Your task to perform on an android device: open app "Google Drive" (install if not already installed) Image 0: 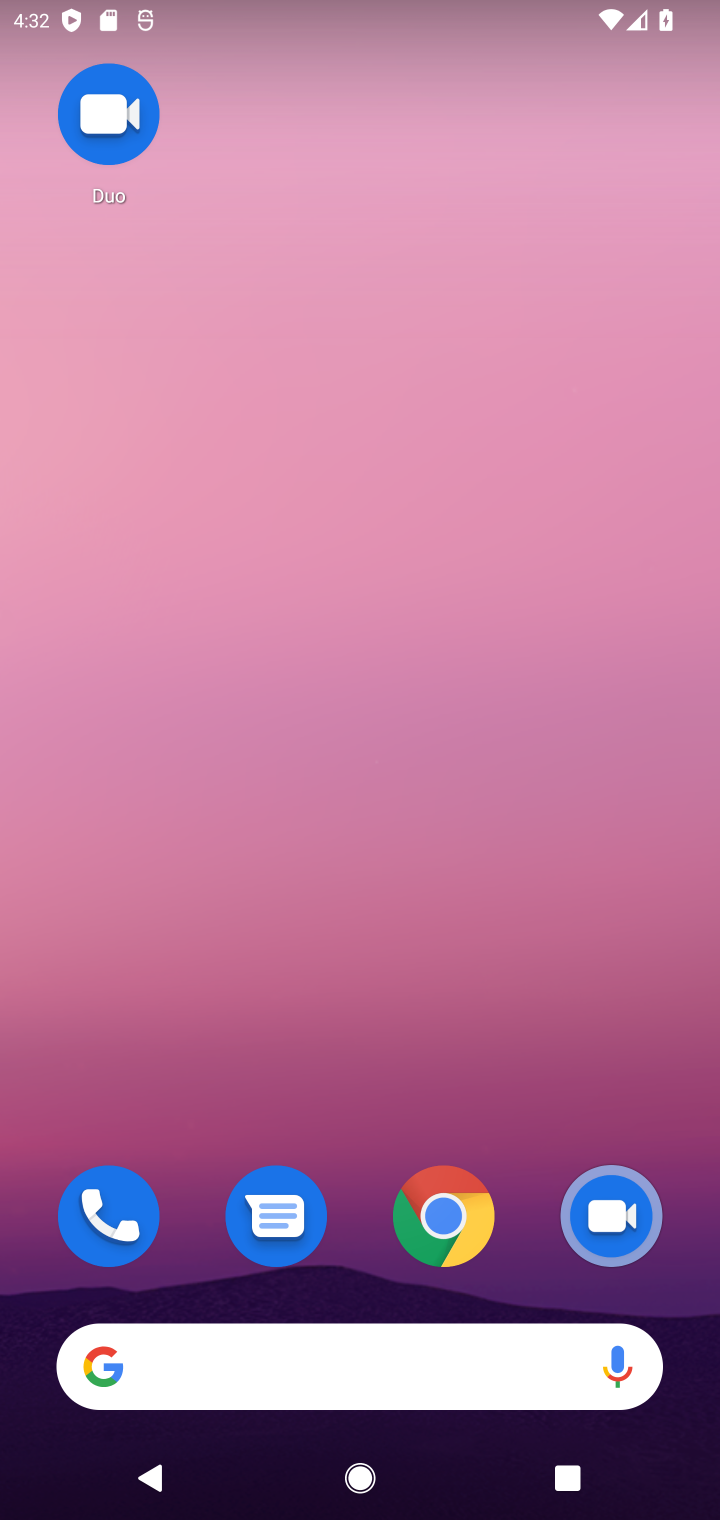
Step 0: drag from (351, 833) to (339, 403)
Your task to perform on an android device: open app "Google Drive" (install if not already installed) Image 1: 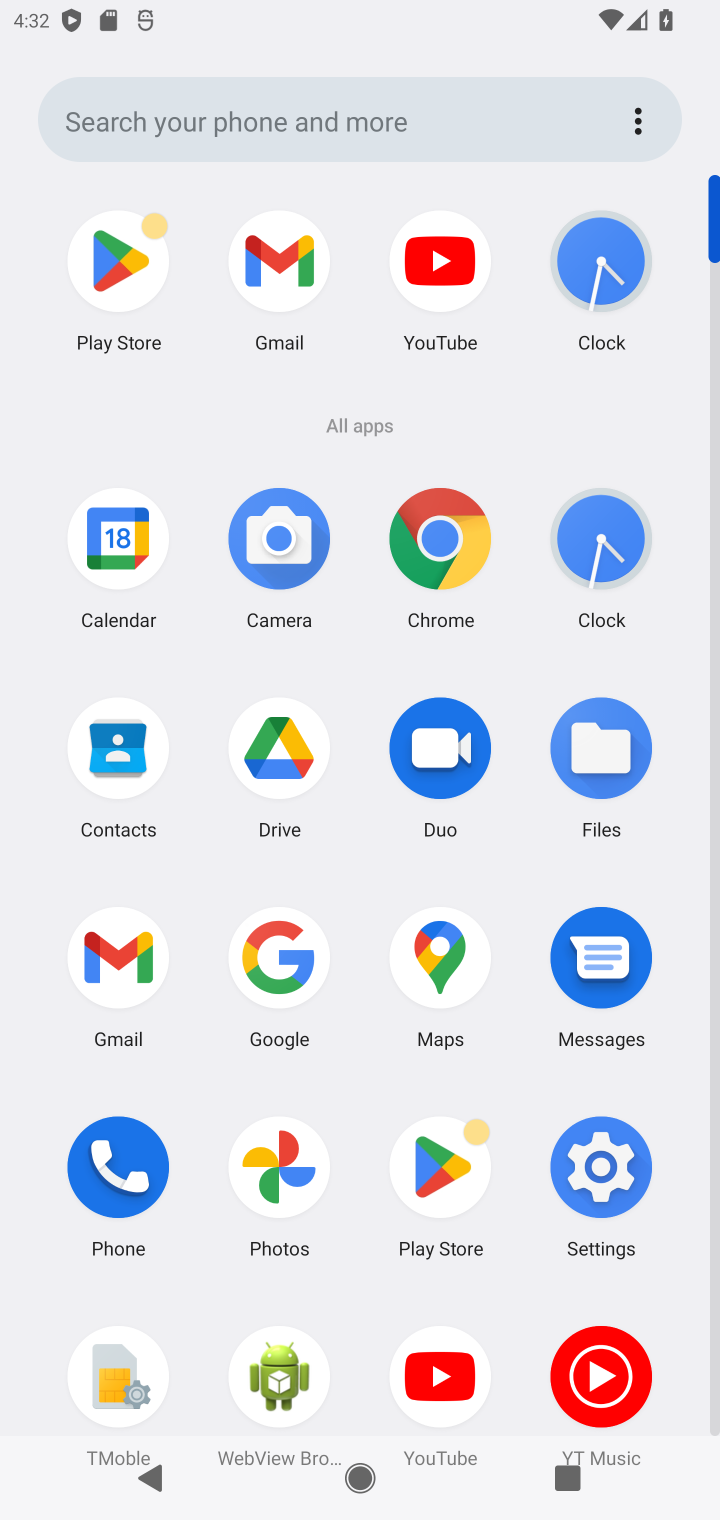
Step 1: click (124, 211)
Your task to perform on an android device: open app "Google Drive" (install if not already installed) Image 2: 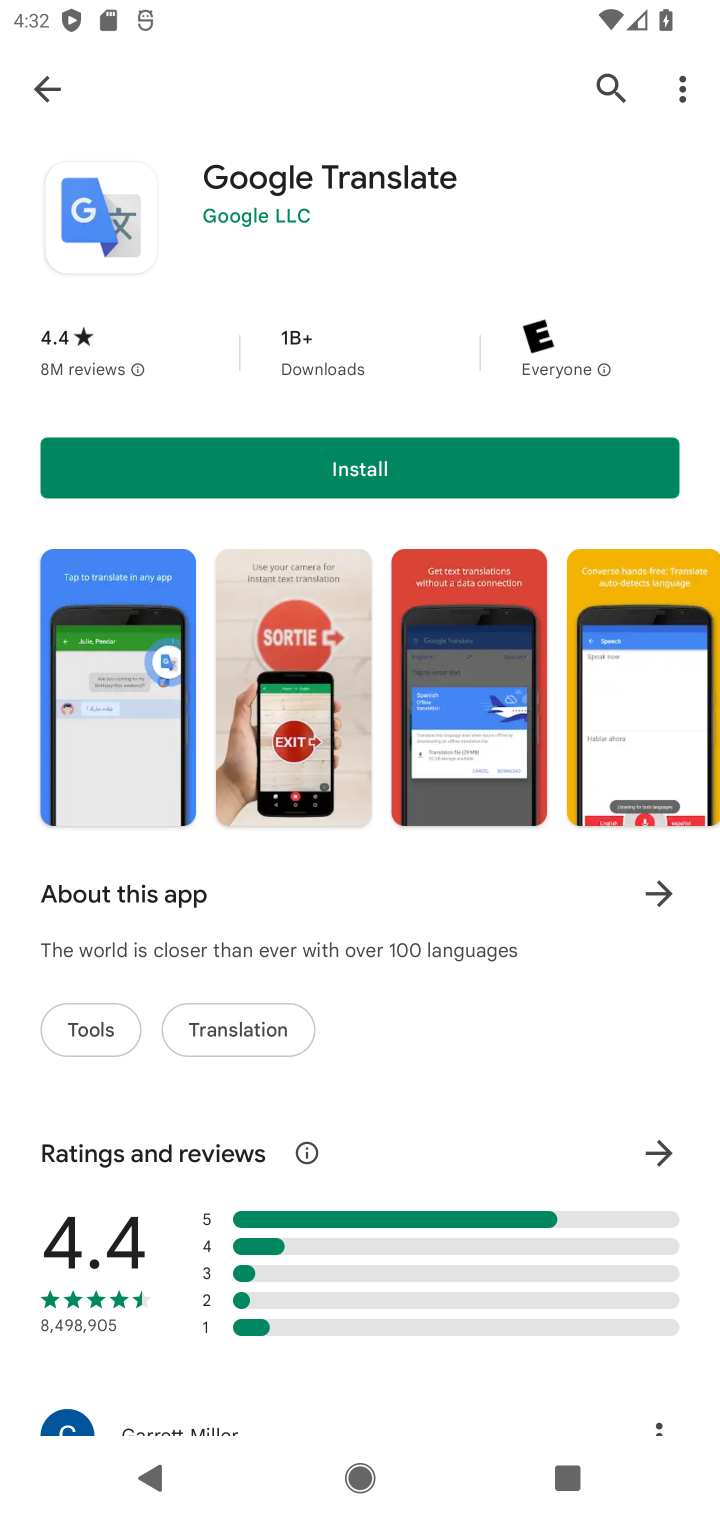
Step 2: click (619, 108)
Your task to perform on an android device: open app "Google Drive" (install if not already installed) Image 3: 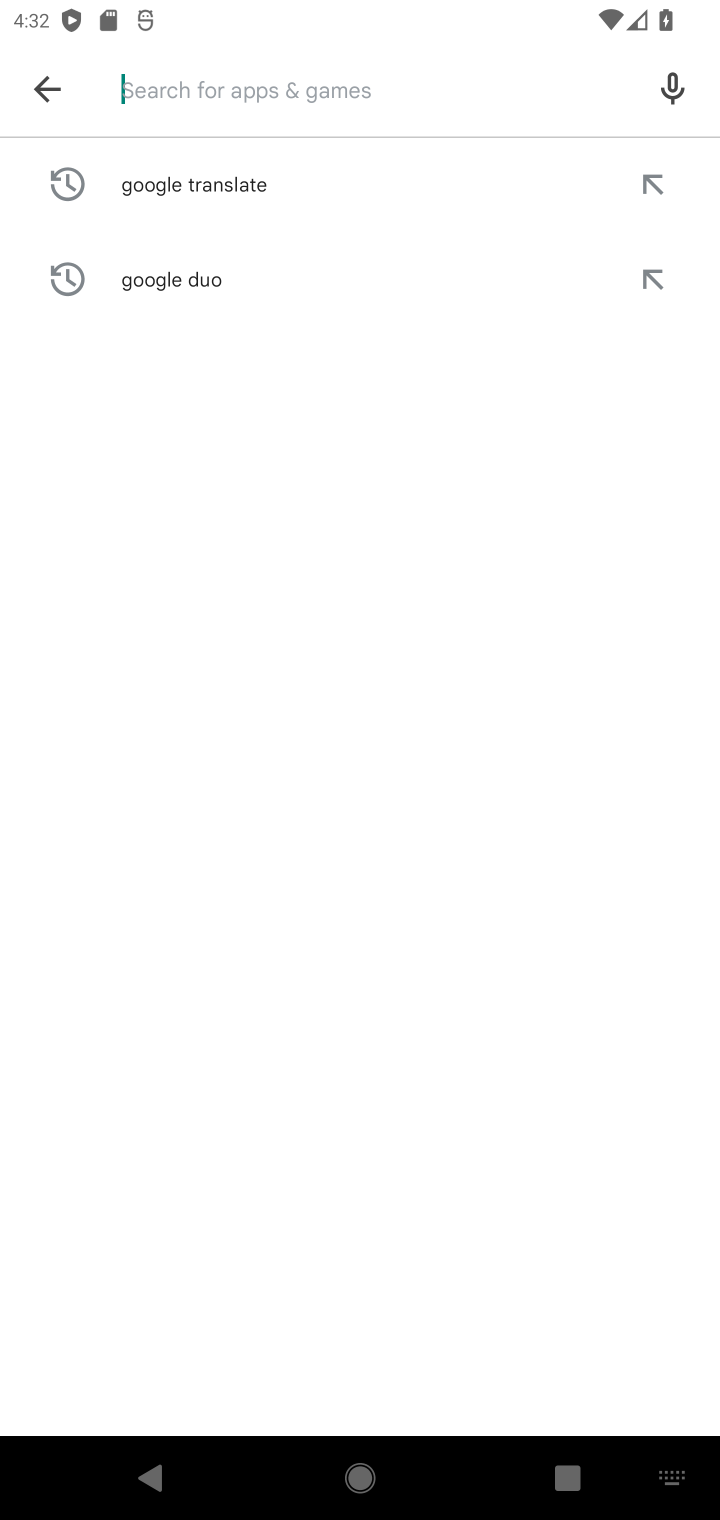
Step 3: type "Google Drive"
Your task to perform on an android device: open app "Google Drive" (install if not already installed) Image 4: 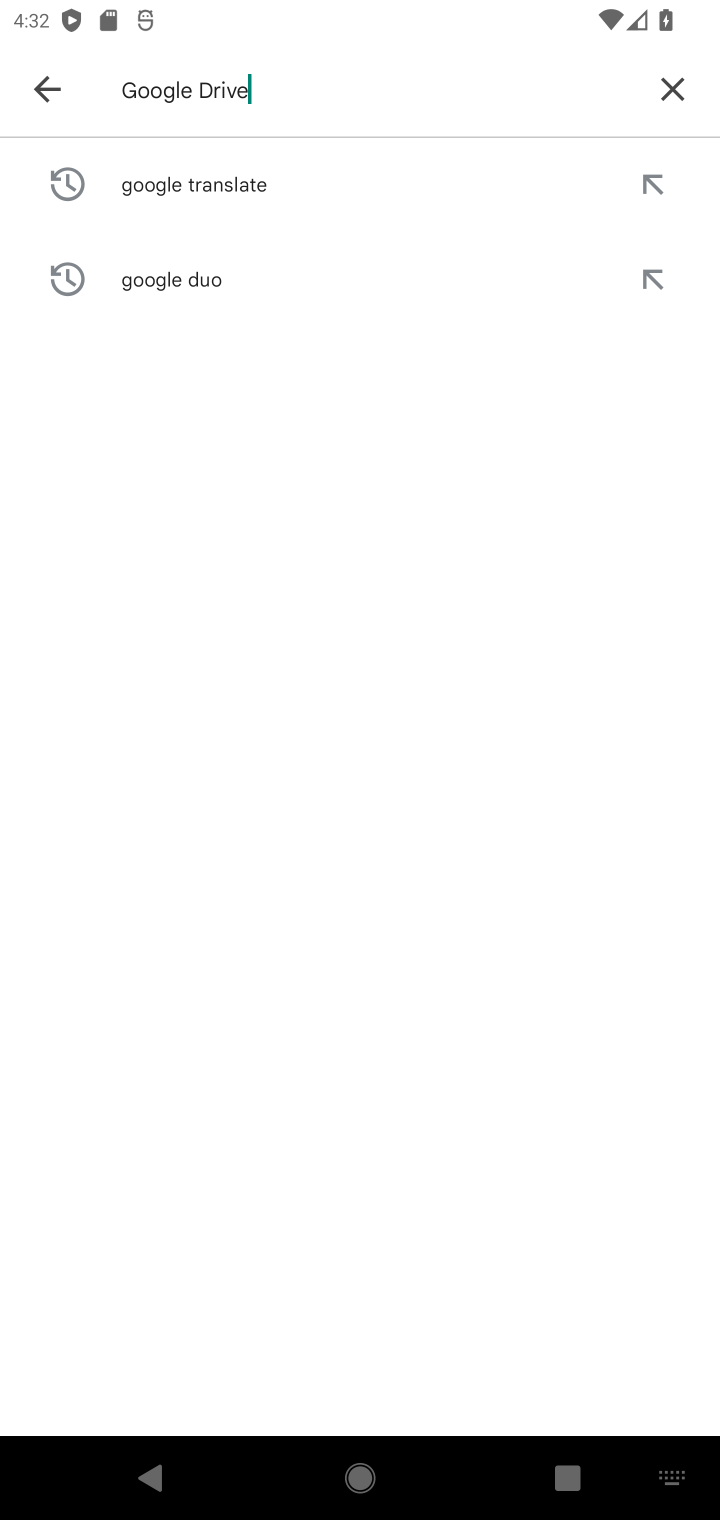
Step 4: type ""
Your task to perform on an android device: open app "Google Drive" (install if not already installed) Image 5: 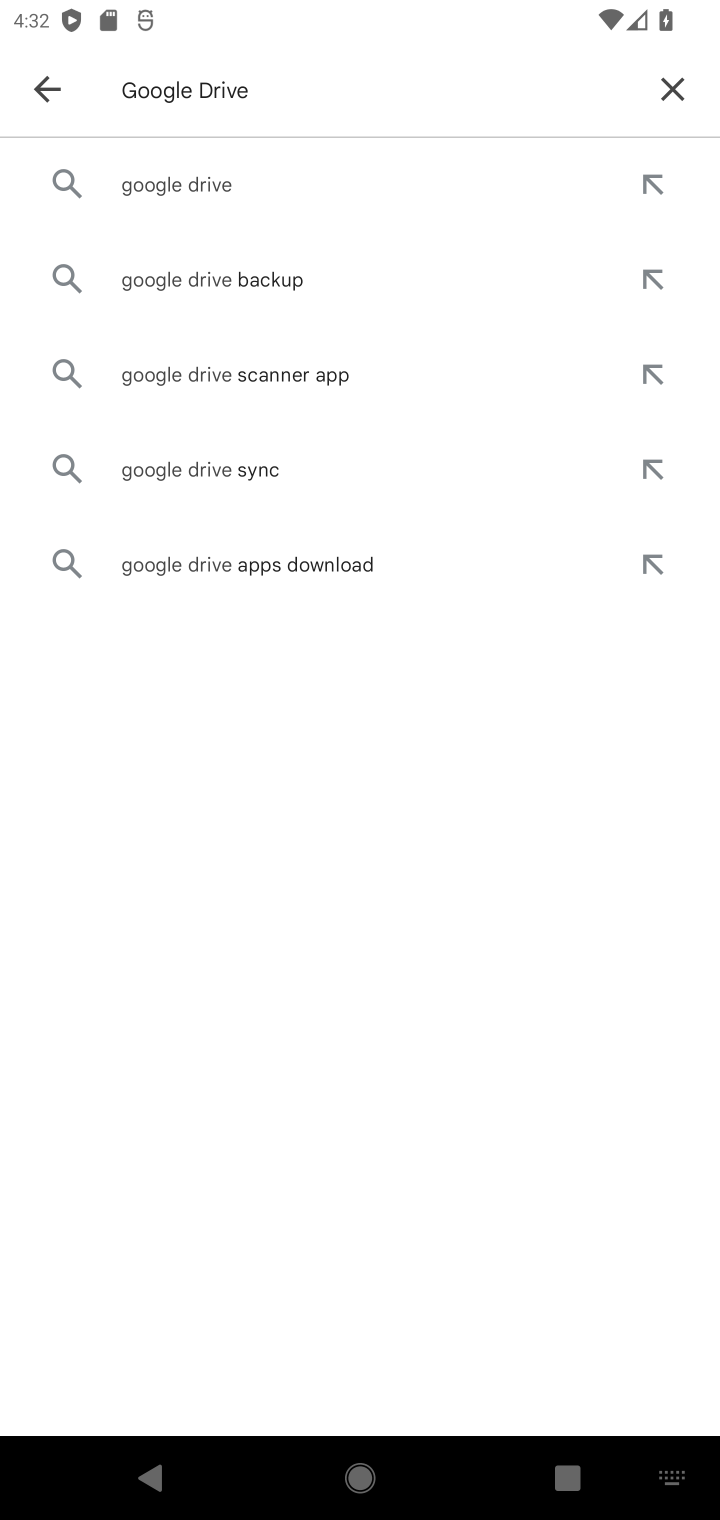
Step 5: click (212, 190)
Your task to perform on an android device: open app "Google Drive" (install if not already installed) Image 6: 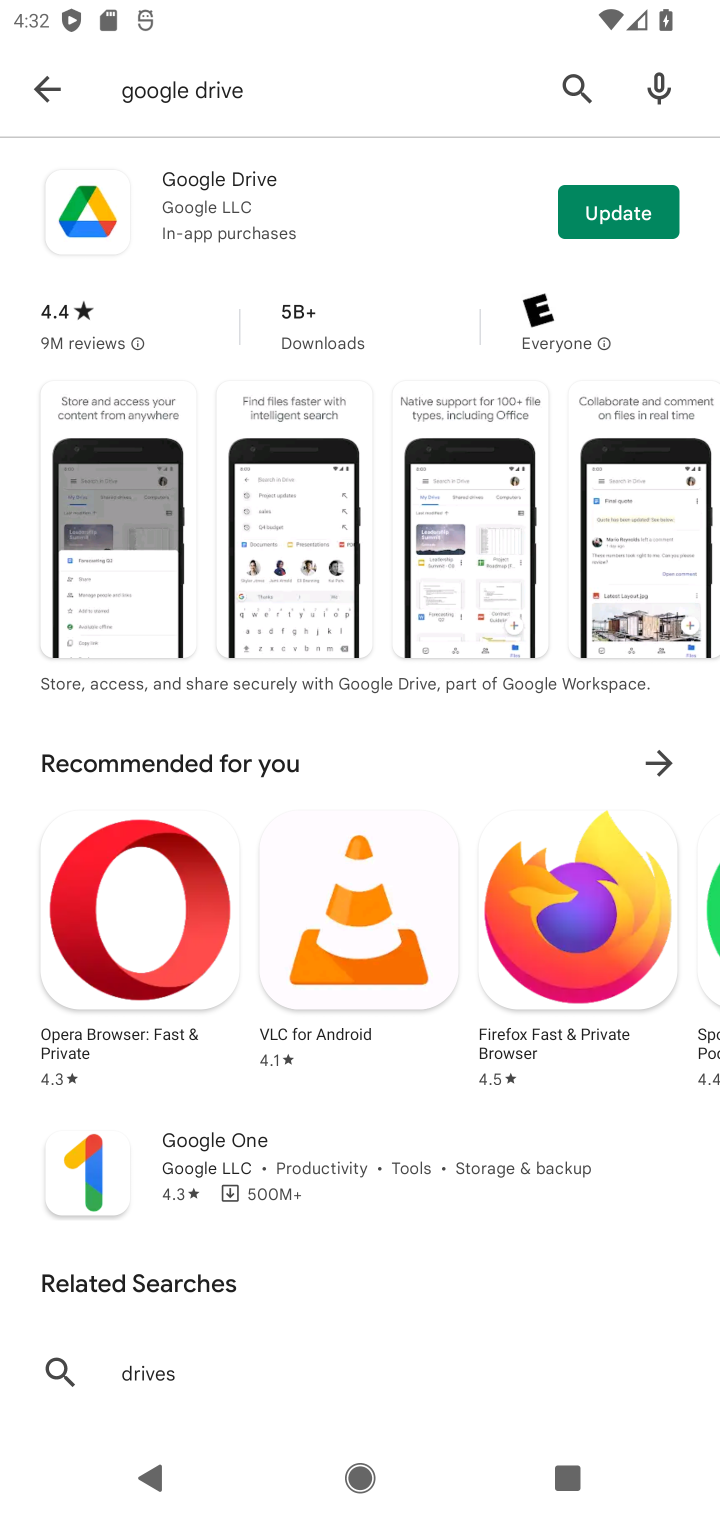
Step 6: click (384, 229)
Your task to perform on an android device: open app "Google Drive" (install if not already installed) Image 7: 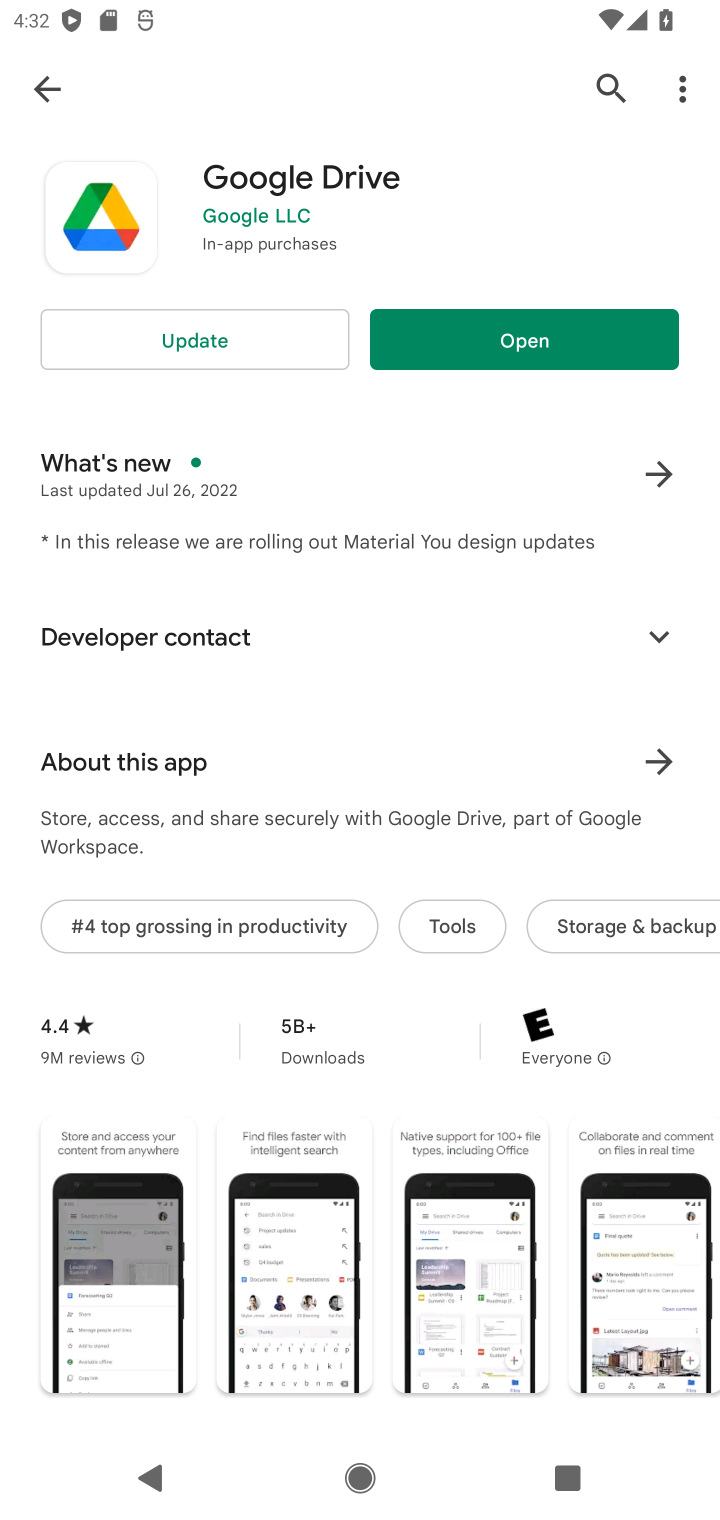
Step 7: click (466, 335)
Your task to perform on an android device: open app "Google Drive" (install if not already installed) Image 8: 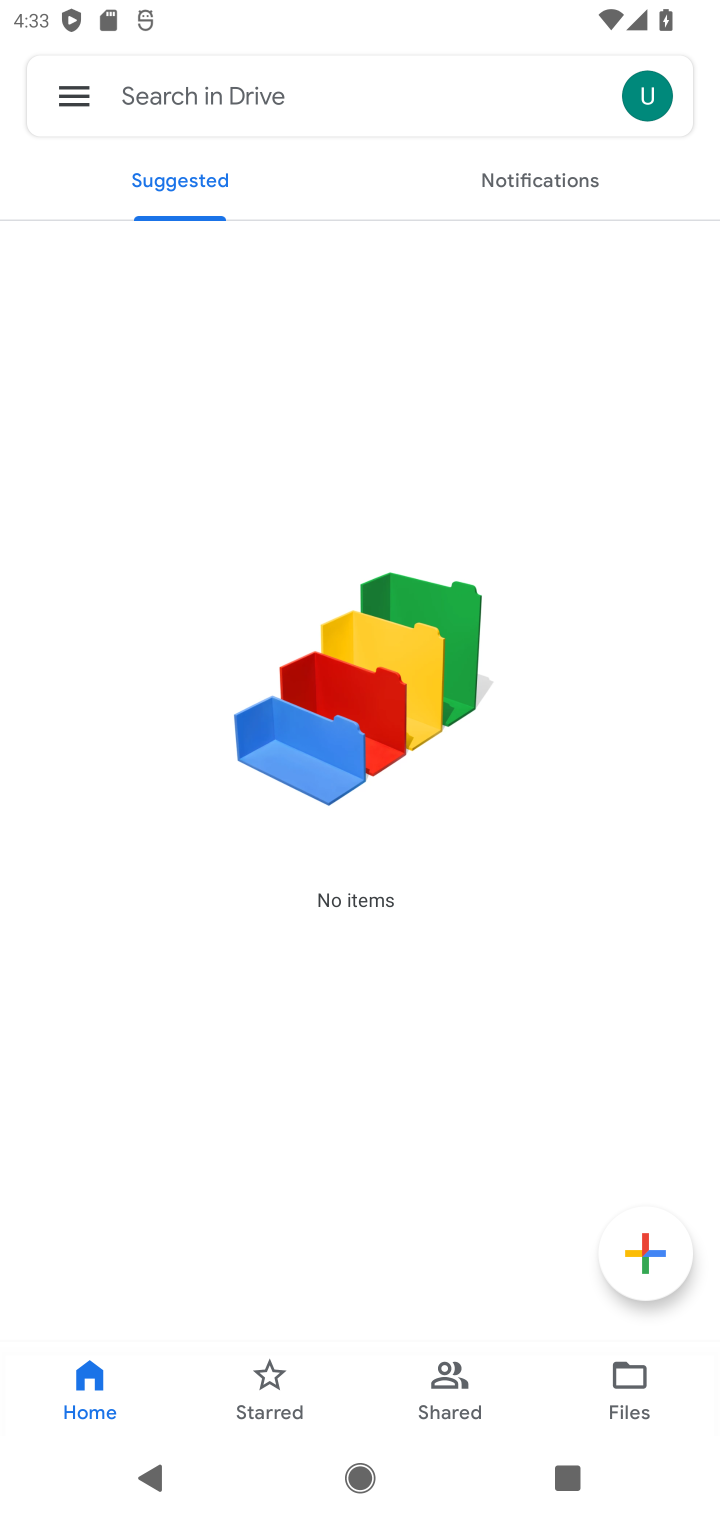
Step 8: task complete